Your task to perform on an android device: turn notification dots off Image 0: 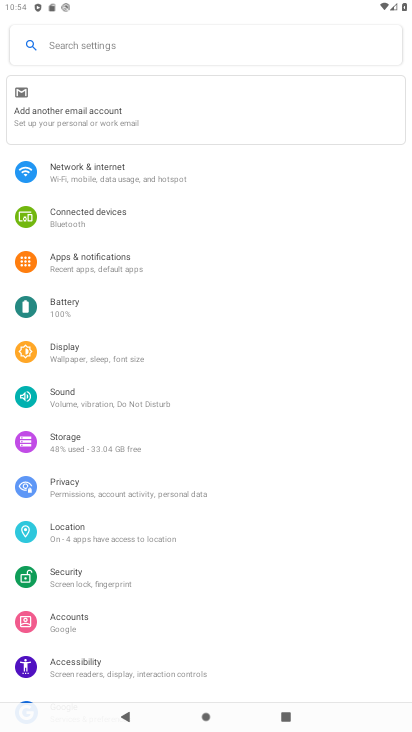
Step 0: click (136, 266)
Your task to perform on an android device: turn notification dots off Image 1: 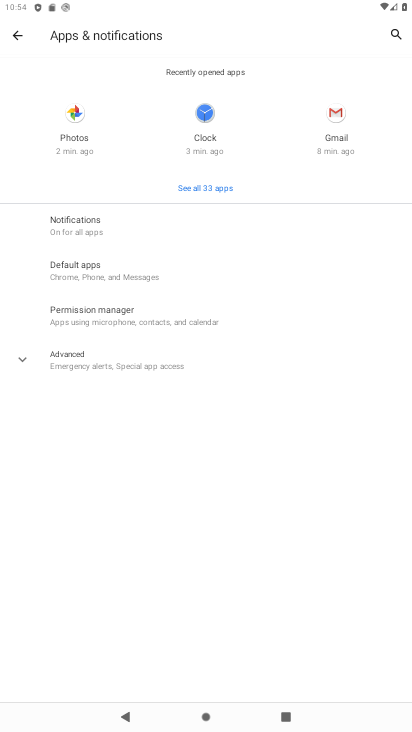
Step 1: click (96, 370)
Your task to perform on an android device: turn notification dots off Image 2: 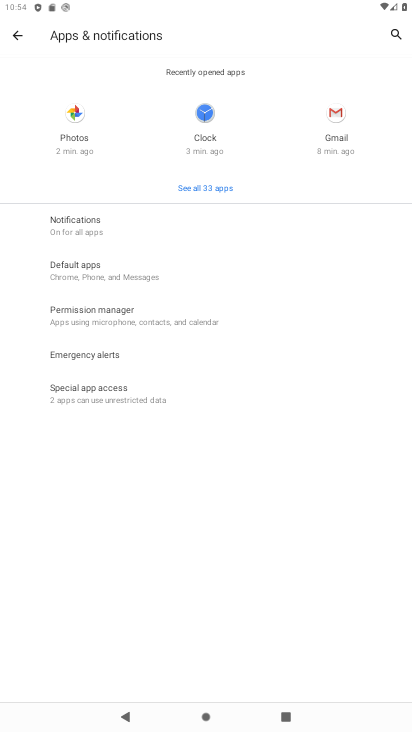
Step 2: click (114, 235)
Your task to perform on an android device: turn notification dots off Image 3: 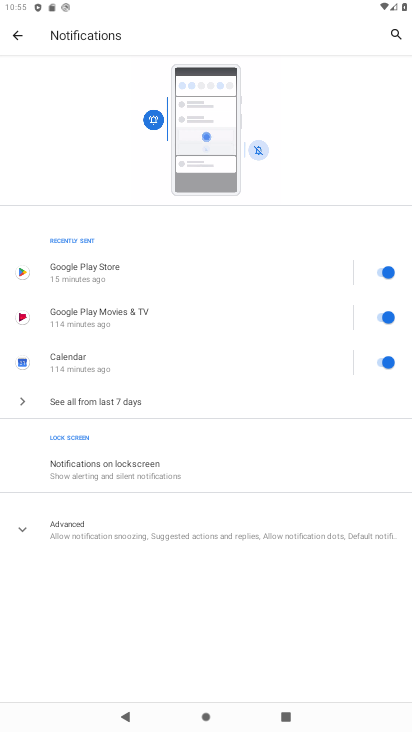
Step 3: click (192, 521)
Your task to perform on an android device: turn notification dots off Image 4: 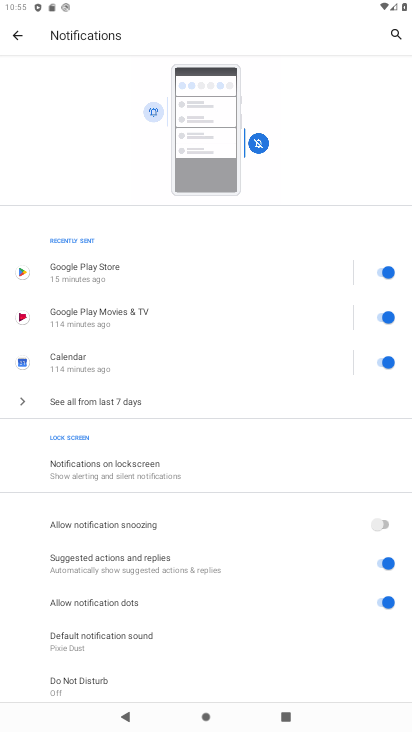
Step 4: click (182, 527)
Your task to perform on an android device: turn notification dots off Image 5: 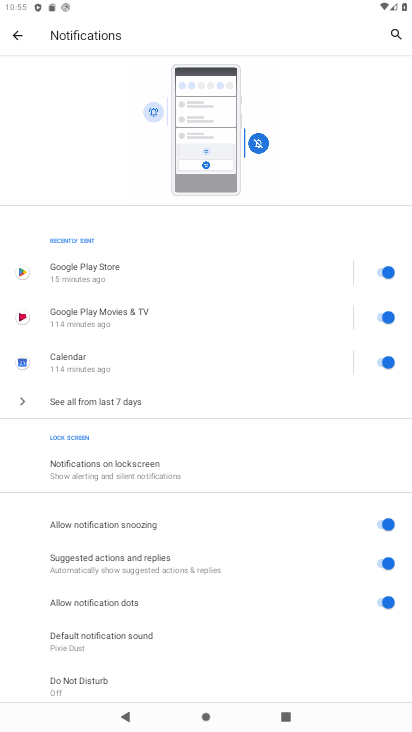
Step 5: click (389, 600)
Your task to perform on an android device: turn notification dots off Image 6: 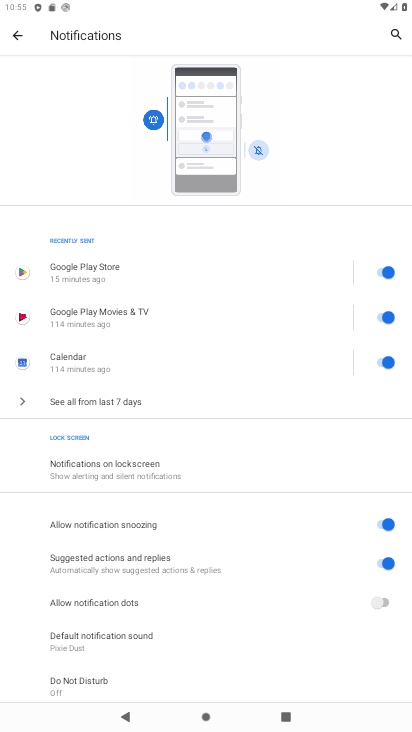
Step 6: task complete